Your task to perform on an android device: Go to Google Image 0: 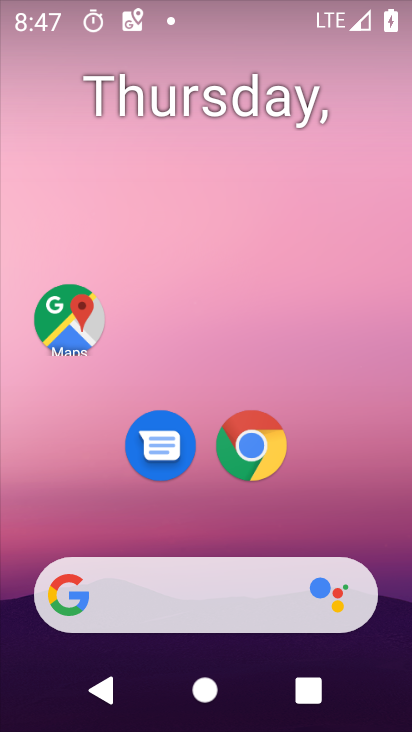
Step 0: click (296, 299)
Your task to perform on an android device: Go to Google Image 1: 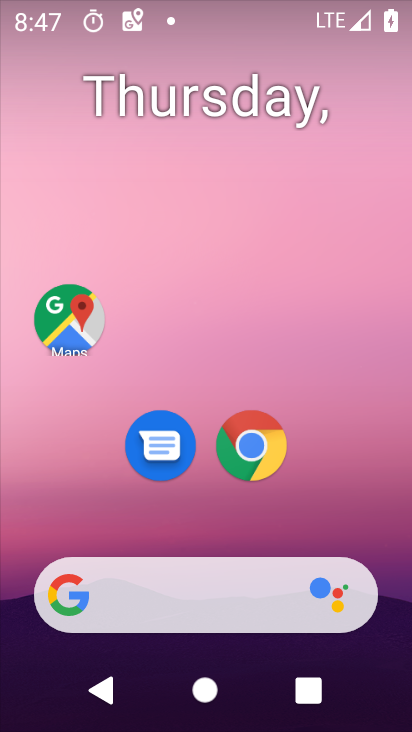
Step 1: drag from (214, 541) to (270, 6)
Your task to perform on an android device: Go to Google Image 2: 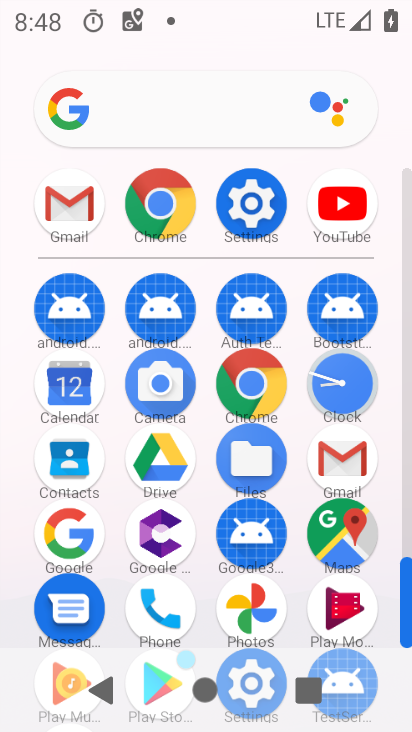
Step 2: click (71, 548)
Your task to perform on an android device: Go to Google Image 3: 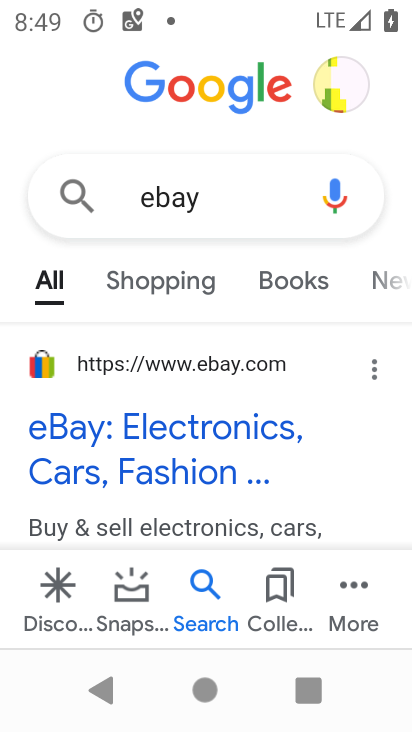
Step 3: task complete